Your task to perform on an android device: Go to CNN.com Image 0: 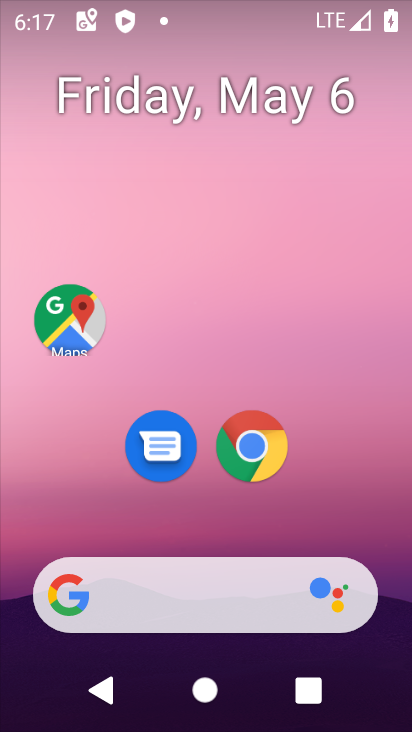
Step 0: drag from (304, 513) to (279, 132)
Your task to perform on an android device: Go to CNN.com Image 1: 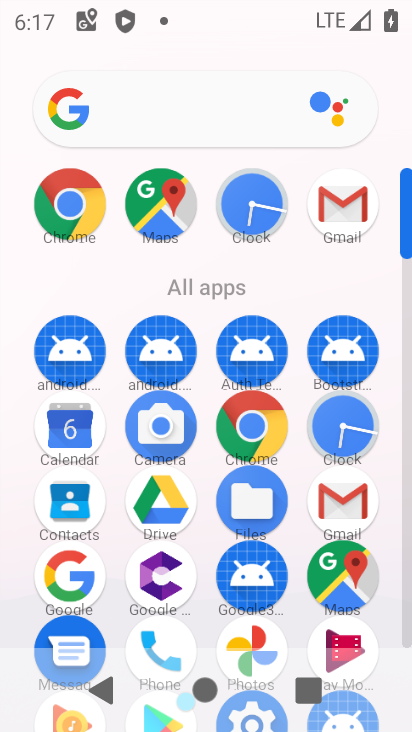
Step 1: click (47, 191)
Your task to perform on an android device: Go to CNN.com Image 2: 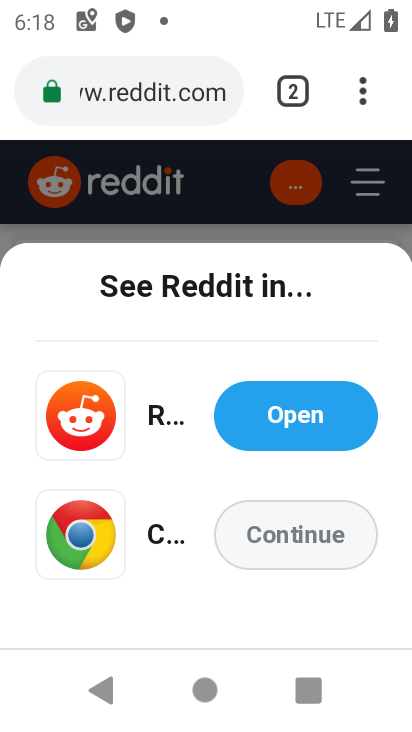
Step 2: click (266, 537)
Your task to perform on an android device: Go to CNN.com Image 3: 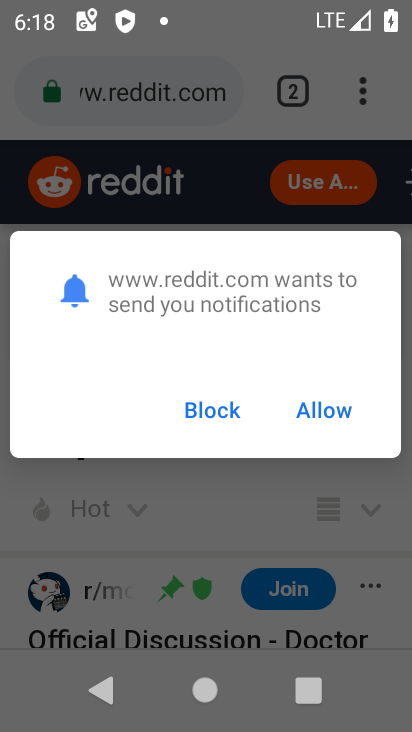
Step 3: click (218, 404)
Your task to perform on an android device: Go to CNN.com Image 4: 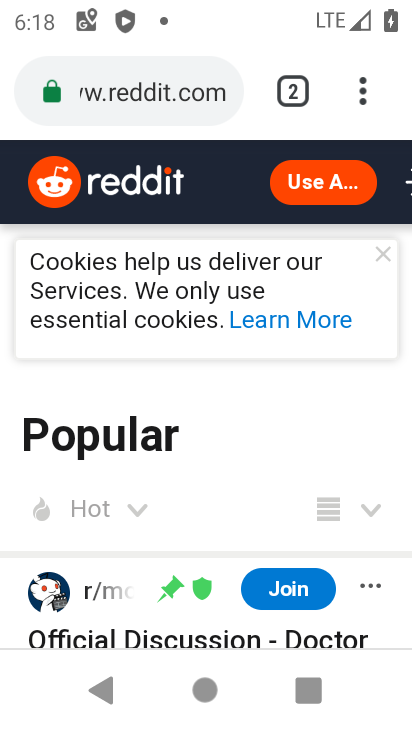
Step 4: click (291, 99)
Your task to perform on an android device: Go to CNN.com Image 5: 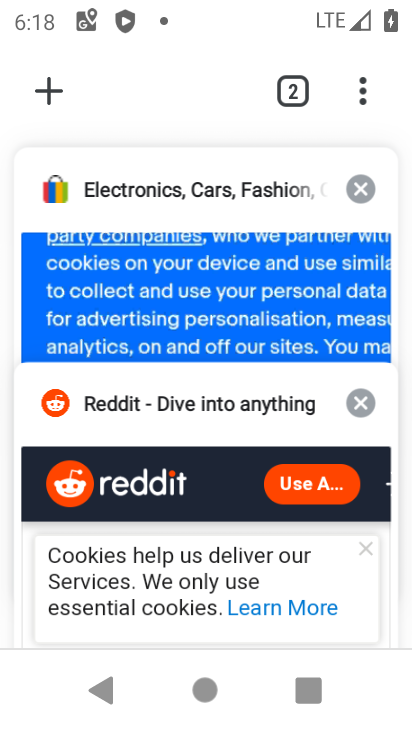
Step 5: click (365, 186)
Your task to perform on an android device: Go to CNN.com Image 6: 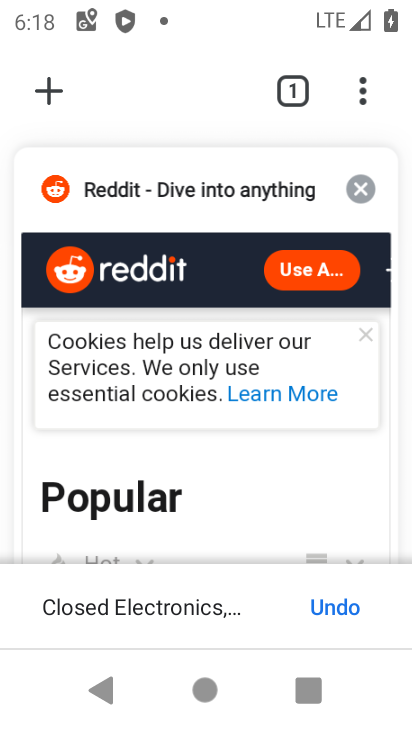
Step 6: click (363, 178)
Your task to perform on an android device: Go to CNN.com Image 7: 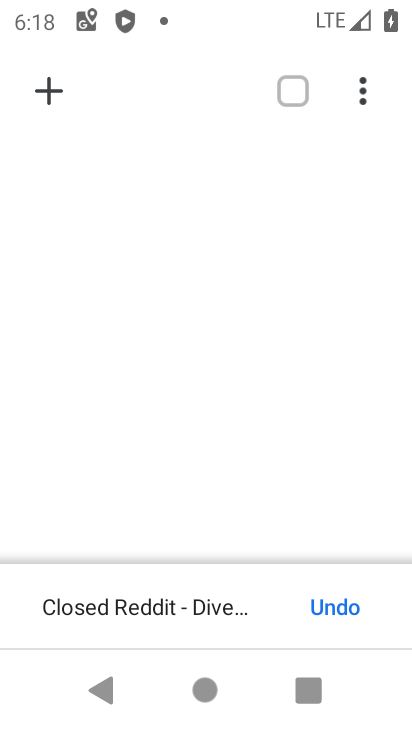
Step 7: click (52, 92)
Your task to perform on an android device: Go to CNN.com Image 8: 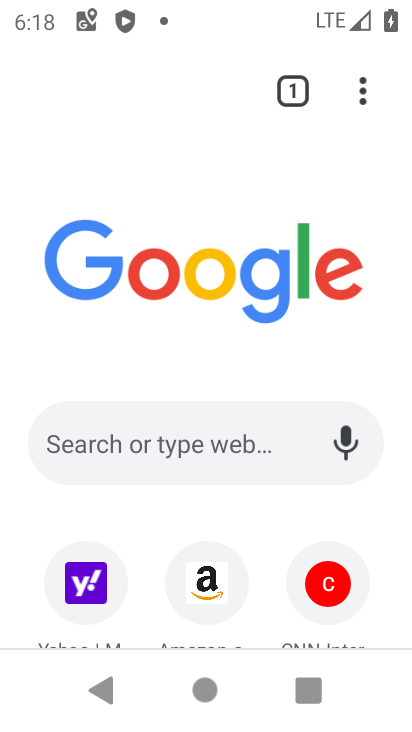
Step 8: drag from (266, 572) to (286, 325)
Your task to perform on an android device: Go to CNN.com Image 9: 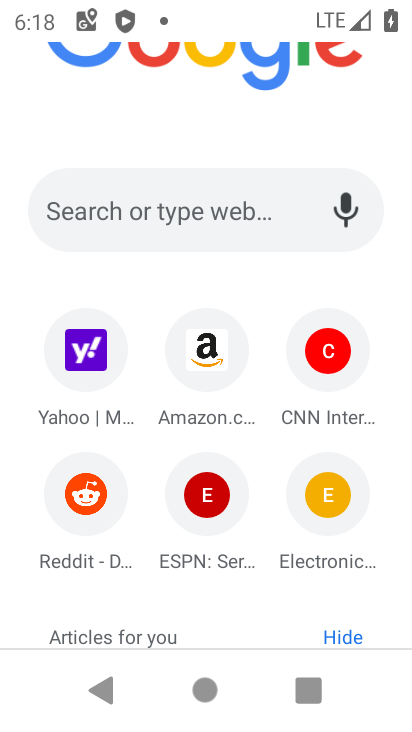
Step 9: click (342, 388)
Your task to perform on an android device: Go to CNN.com Image 10: 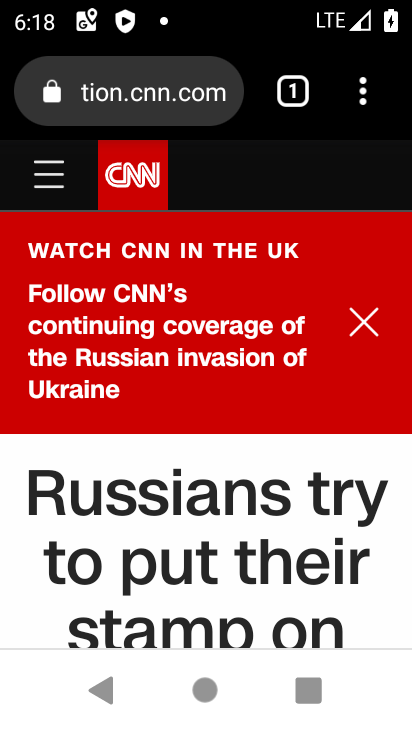
Step 10: task complete